Your task to perform on an android device: Open eBay Image 0: 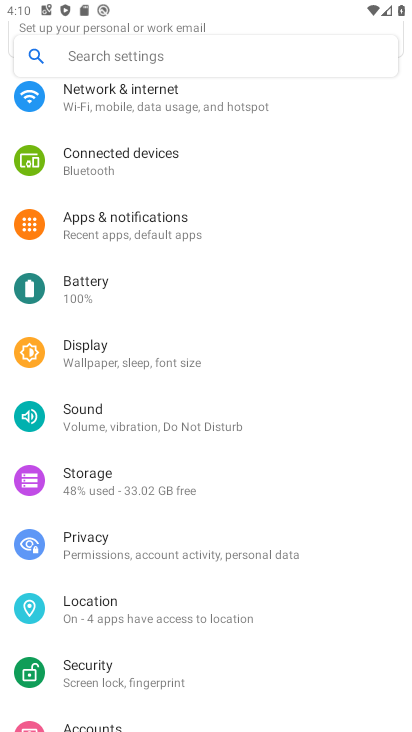
Step 0: press home button
Your task to perform on an android device: Open eBay Image 1: 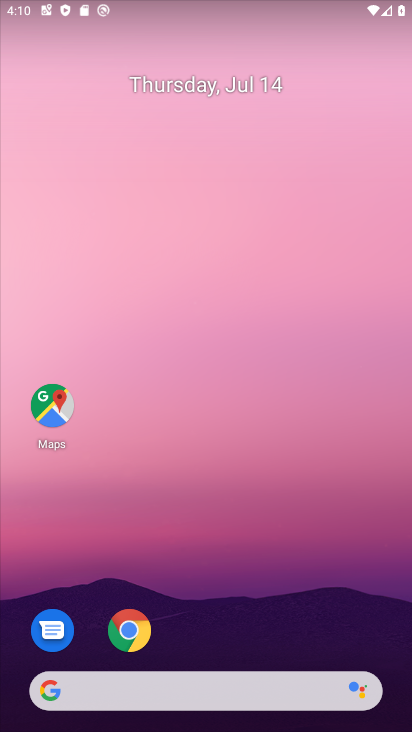
Step 1: drag from (347, 672) to (290, 23)
Your task to perform on an android device: Open eBay Image 2: 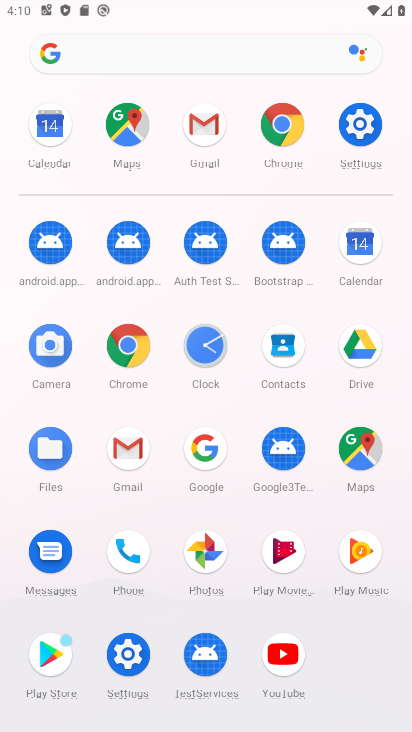
Step 2: click (141, 344)
Your task to perform on an android device: Open eBay Image 3: 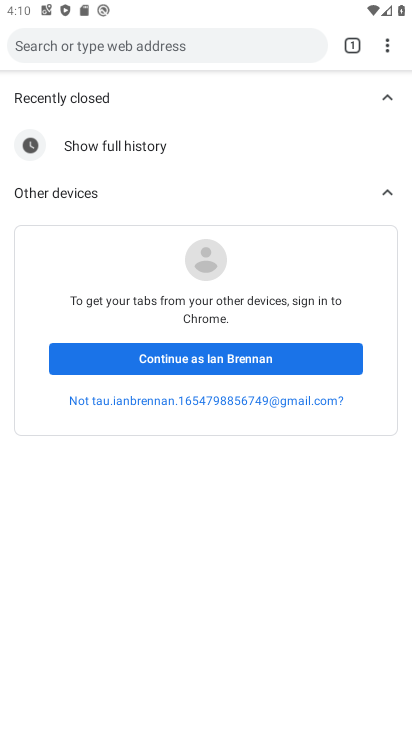
Step 3: click (256, 51)
Your task to perform on an android device: Open eBay Image 4: 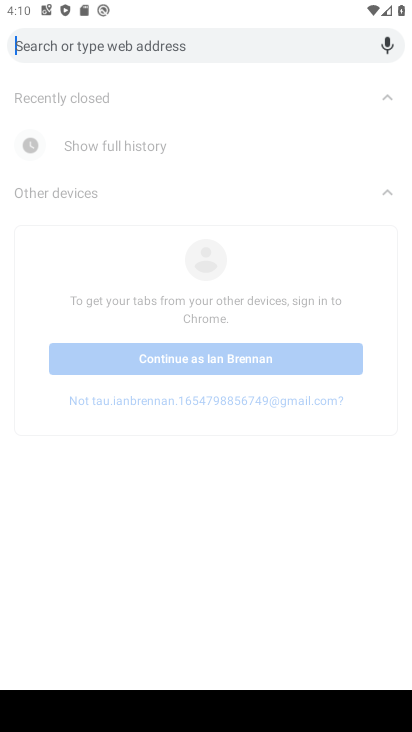
Step 4: type "ebay"
Your task to perform on an android device: Open eBay Image 5: 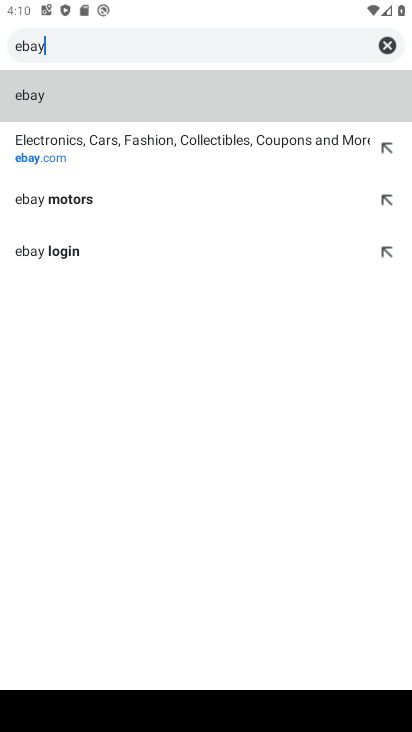
Step 5: click (29, 139)
Your task to perform on an android device: Open eBay Image 6: 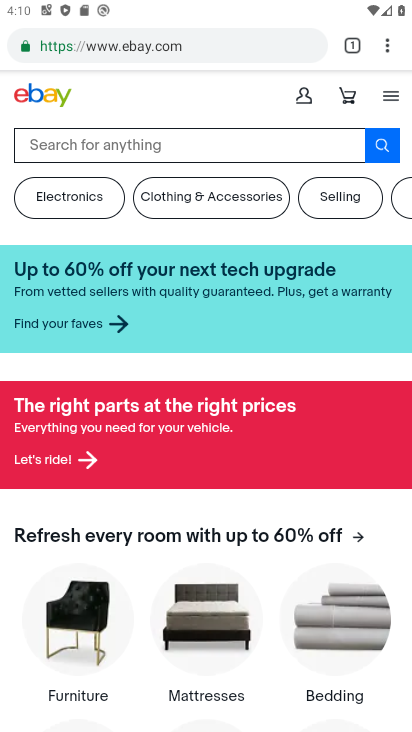
Step 6: task complete